Your task to perform on an android device: Search for "apple airpods" on target.com, select the first entry, and add it to the cart. Image 0: 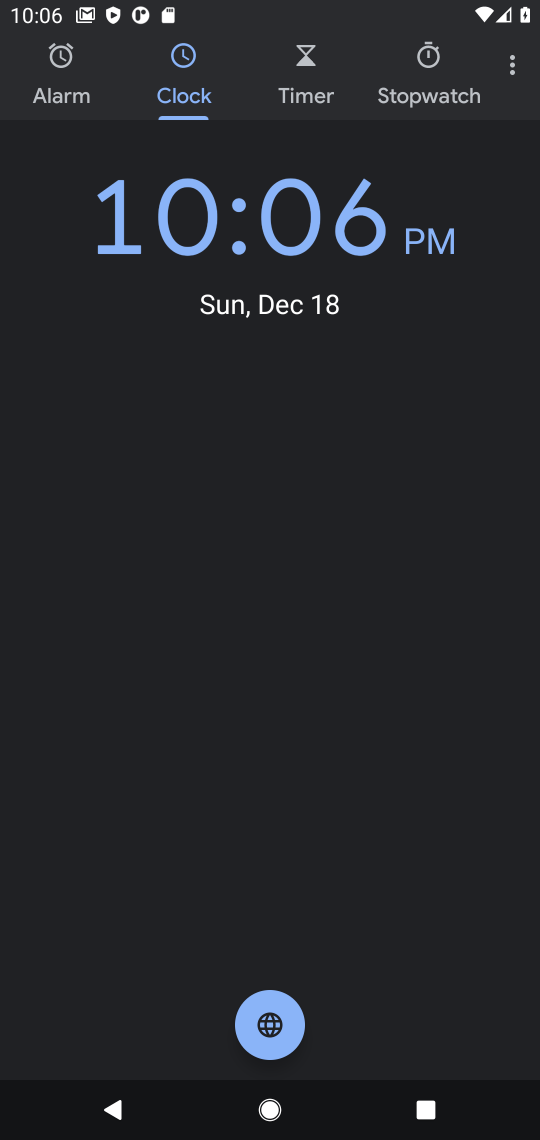
Step 0: press home button
Your task to perform on an android device: Search for "apple airpods" on target.com, select the first entry, and add it to the cart. Image 1: 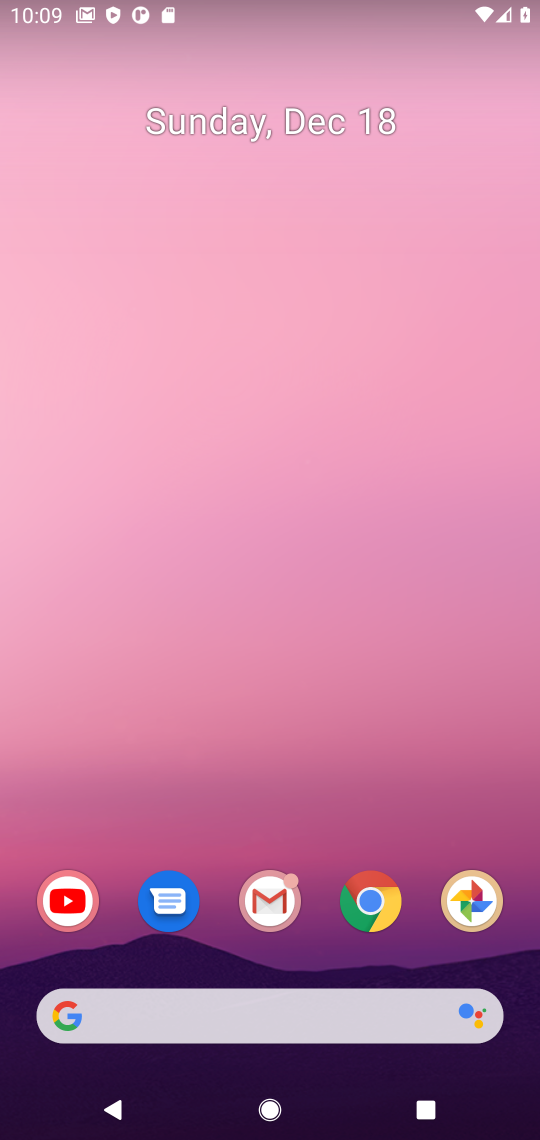
Step 1: click (398, 904)
Your task to perform on an android device: Search for "apple airpods" on target.com, select the first entry, and add it to the cart. Image 2: 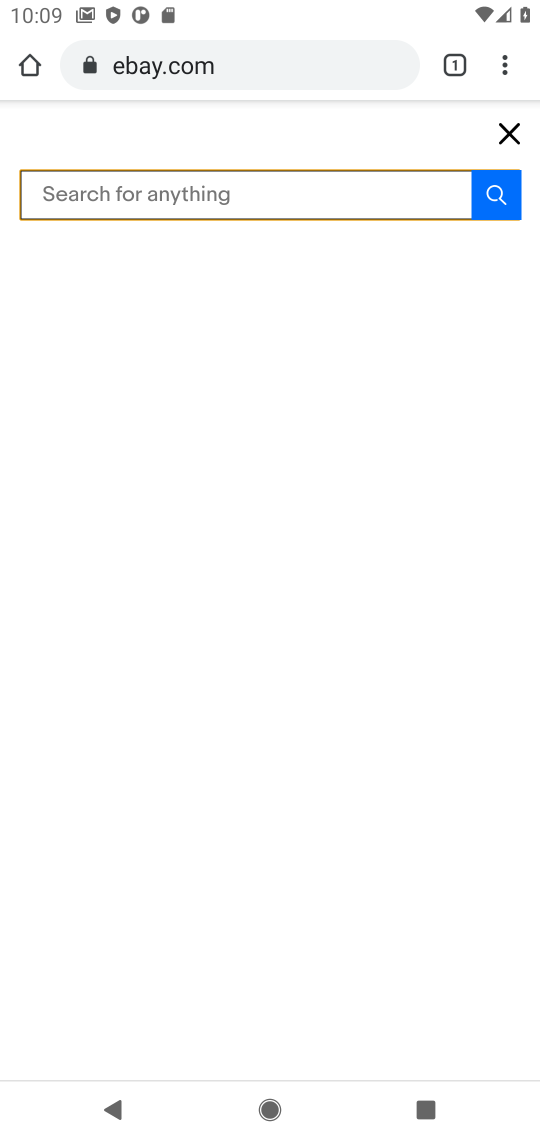
Step 2: task complete